Your task to perform on an android device: toggle notifications settings in the gmail app Image 0: 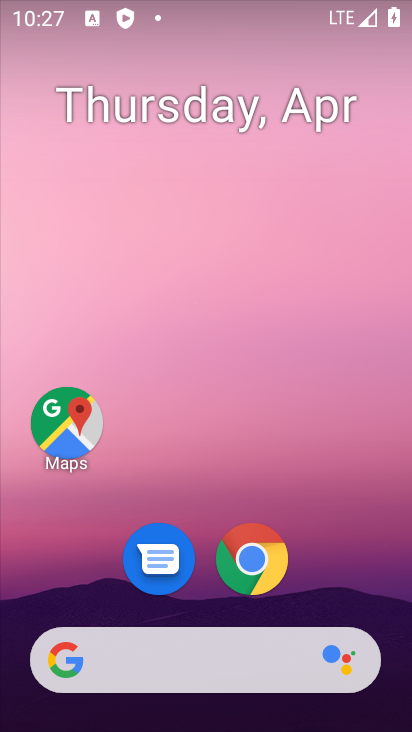
Step 0: drag from (191, 622) to (229, 51)
Your task to perform on an android device: toggle notifications settings in the gmail app Image 1: 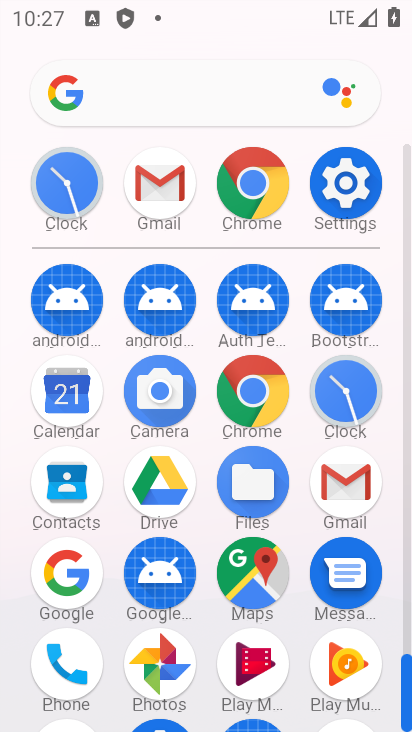
Step 1: click (168, 196)
Your task to perform on an android device: toggle notifications settings in the gmail app Image 2: 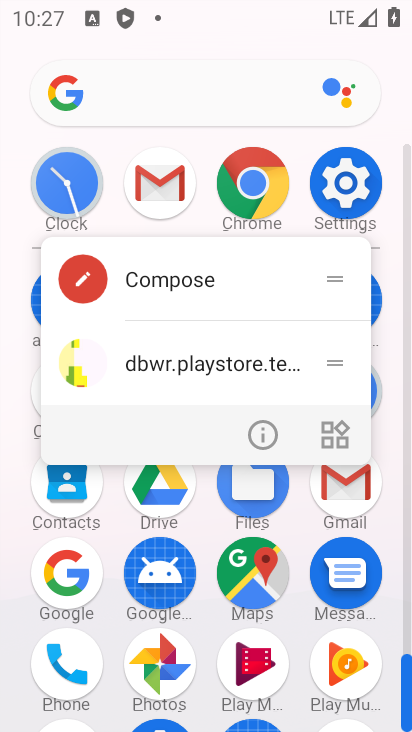
Step 2: click (266, 430)
Your task to perform on an android device: toggle notifications settings in the gmail app Image 3: 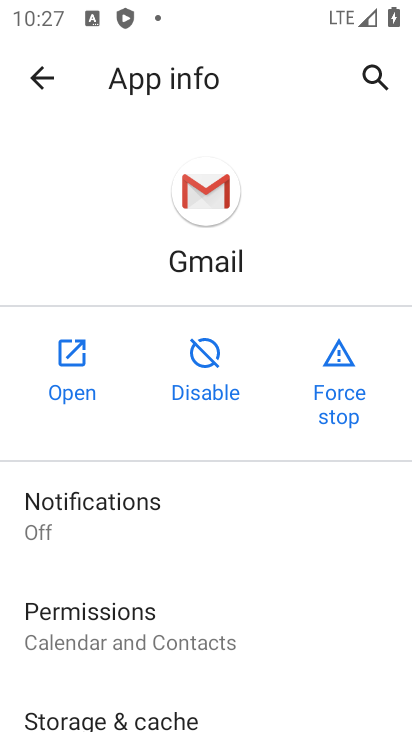
Step 3: click (149, 517)
Your task to perform on an android device: toggle notifications settings in the gmail app Image 4: 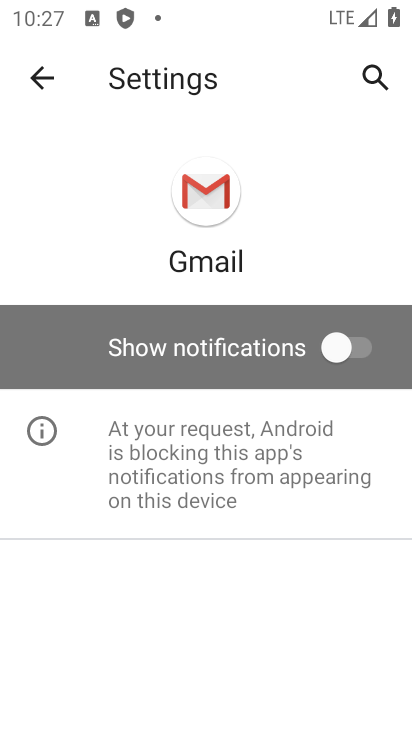
Step 4: click (342, 359)
Your task to perform on an android device: toggle notifications settings in the gmail app Image 5: 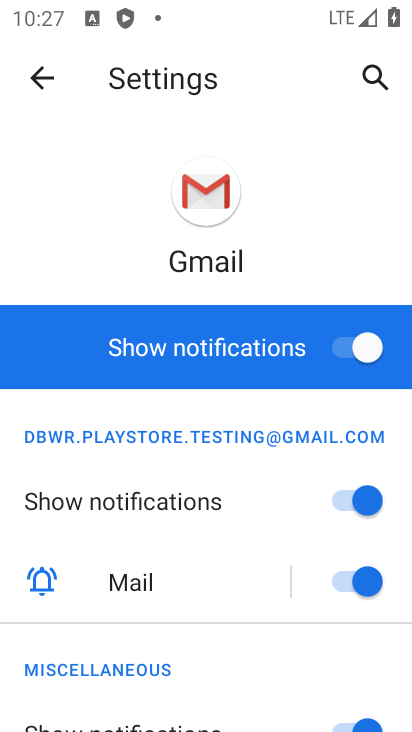
Step 5: task complete